Your task to perform on an android device: turn pop-ups on in chrome Image 0: 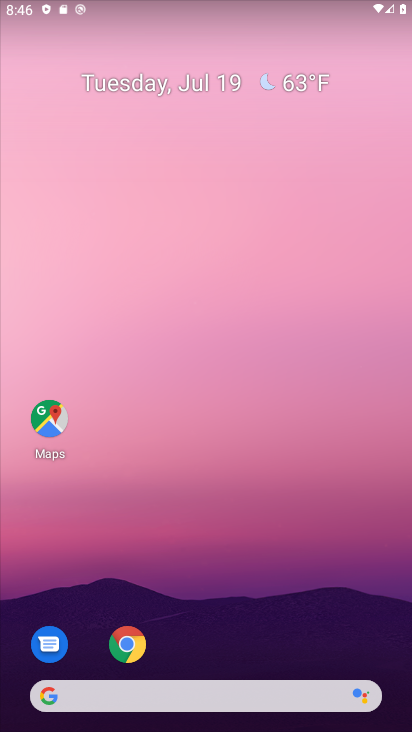
Step 0: drag from (252, 663) to (202, 293)
Your task to perform on an android device: turn pop-ups on in chrome Image 1: 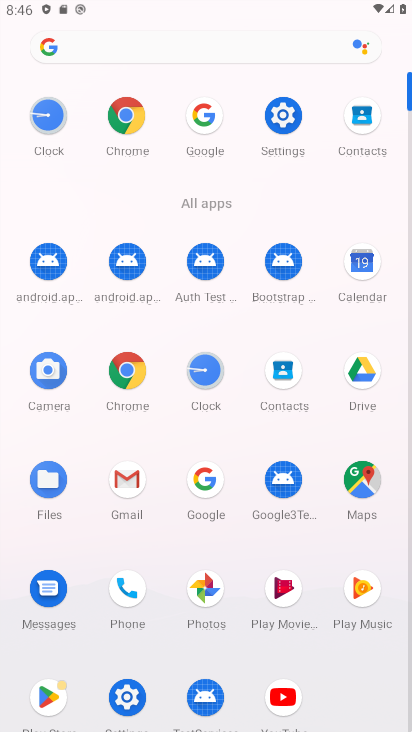
Step 1: click (124, 105)
Your task to perform on an android device: turn pop-ups on in chrome Image 2: 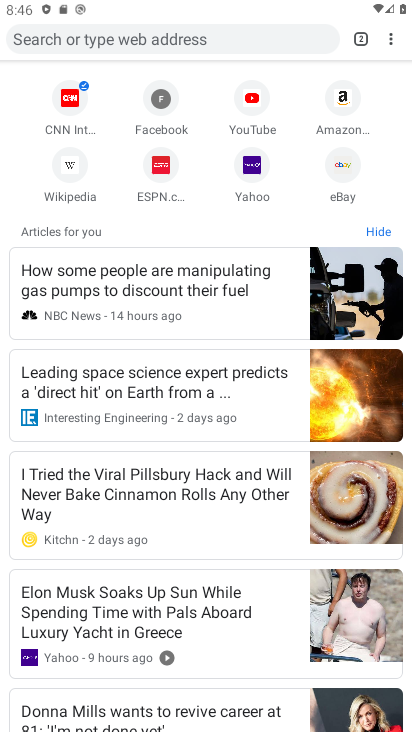
Step 2: click (393, 43)
Your task to perform on an android device: turn pop-ups on in chrome Image 3: 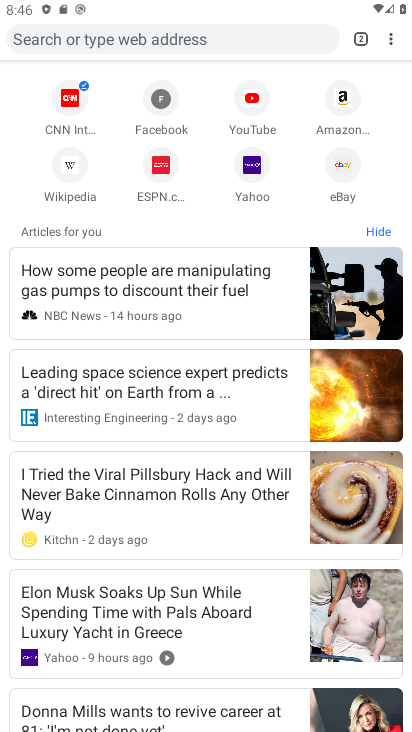
Step 3: drag from (385, 37) to (248, 331)
Your task to perform on an android device: turn pop-ups on in chrome Image 4: 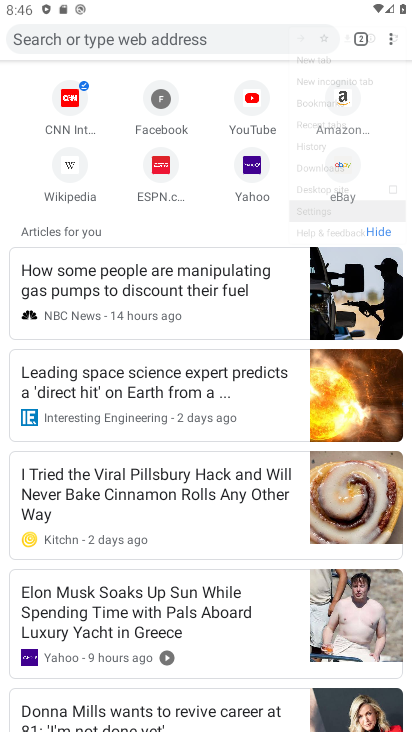
Step 4: click (248, 332)
Your task to perform on an android device: turn pop-ups on in chrome Image 5: 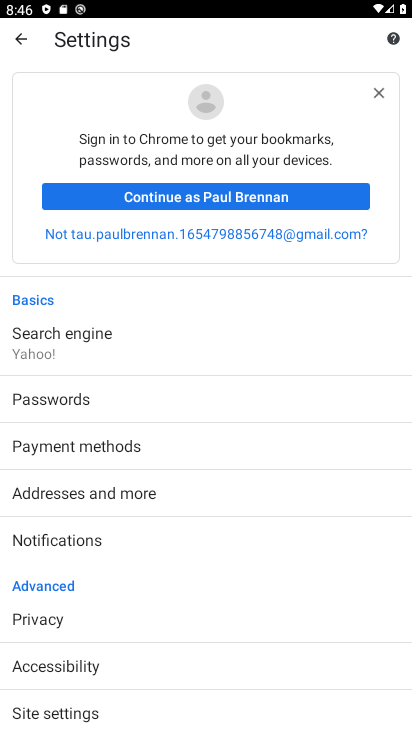
Step 5: drag from (71, 582) to (70, 261)
Your task to perform on an android device: turn pop-ups on in chrome Image 6: 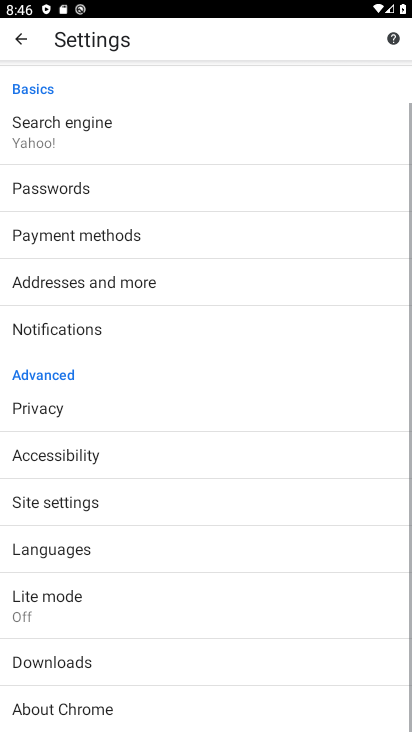
Step 6: drag from (94, 516) to (108, 238)
Your task to perform on an android device: turn pop-ups on in chrome Image 7: 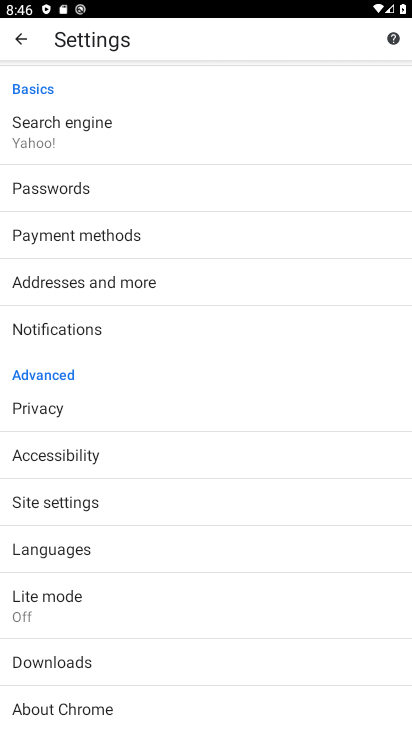
Step 7: click (46, 498)
Your task to perform on an android device: turn pop-ups on in chrome Image 8: 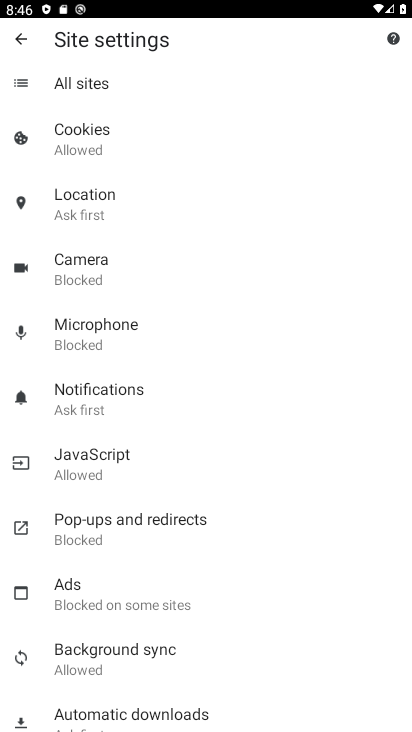
Step 8: click (64, 519)
Your task to perform on an android device: turn pop-ups on in chrome Image 9: 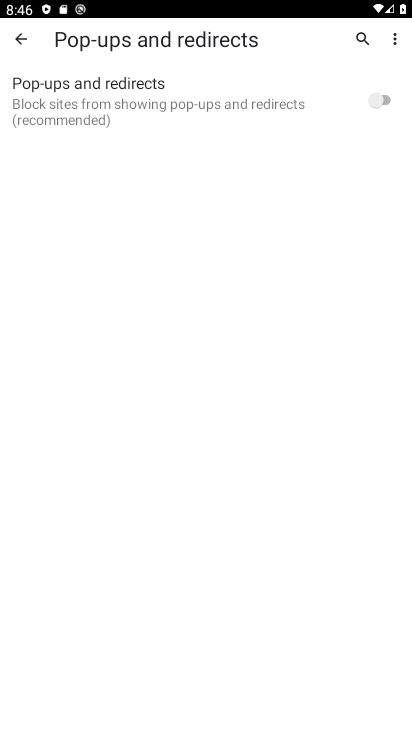
Step 9: click (370, 97)
Your task to perform on an android device: turn pop-ups on in chrome Image 10: 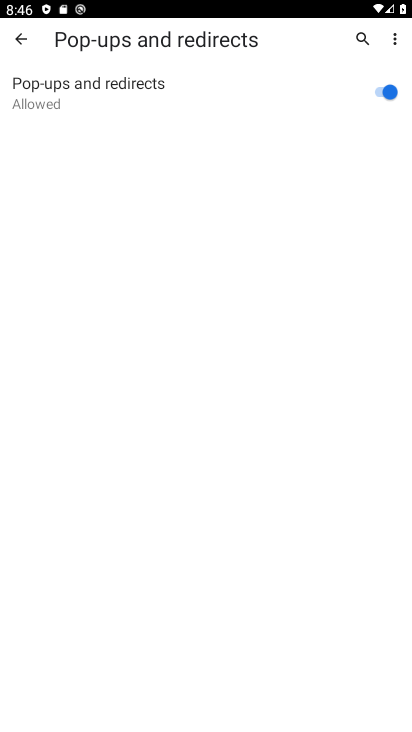
Step 10: task complete